Your task to perform on an android device: find snoozed emails in the gmail app Image 0: 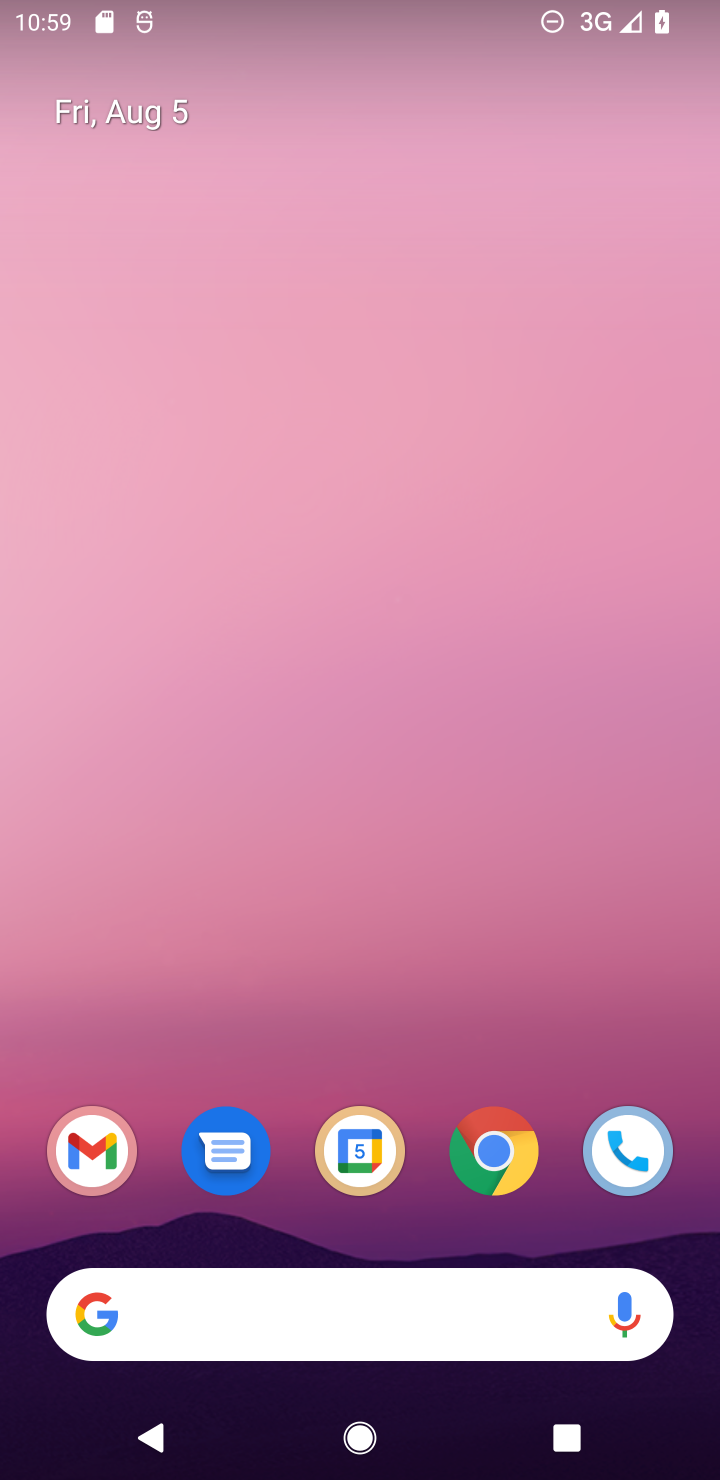
Step 0: click (83, 1138)
Your task to perform on an android device: find snoozed emails in the gmail app Image 1: 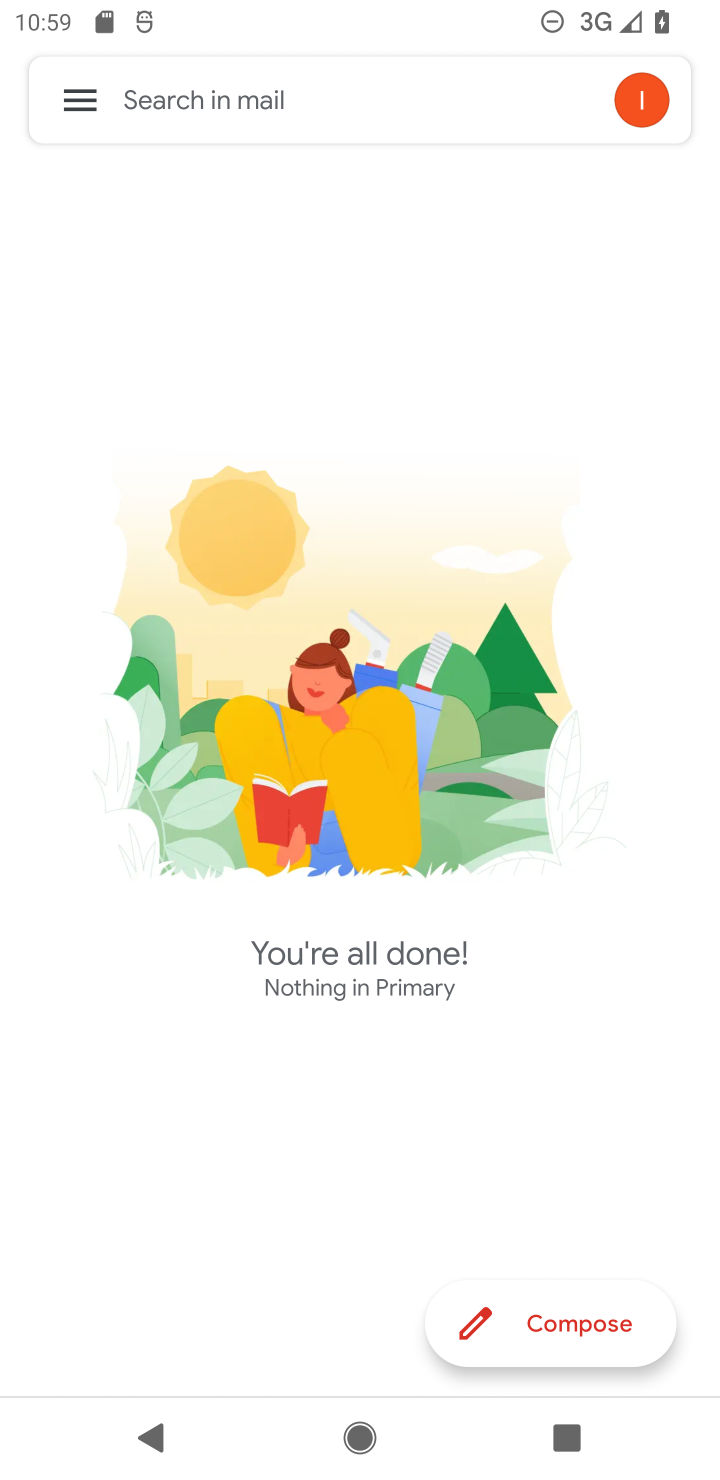
Step 1: click (91, 94)
Your task to perform on an android device: find snoozed emails in the gmail app Image 2: 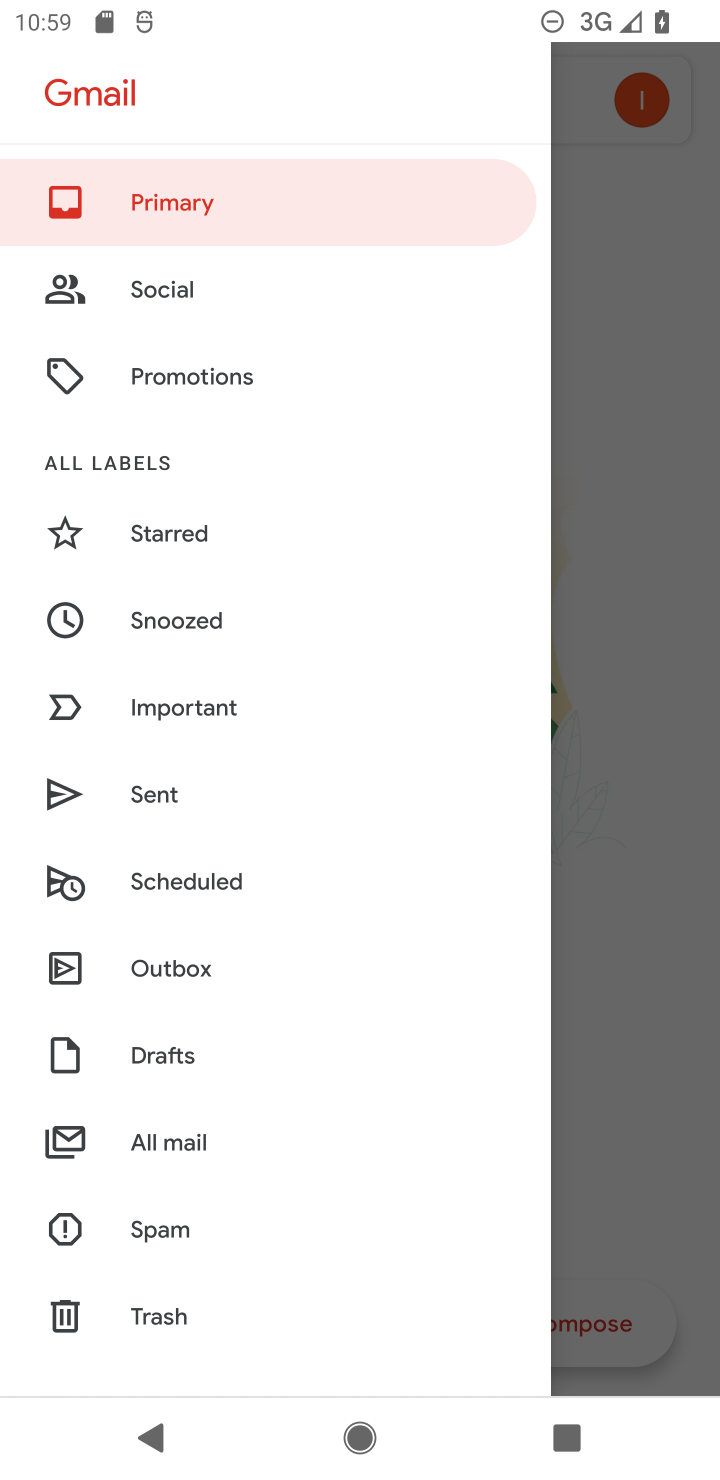
Step 2: click (160, 616)
Your task to perform on an android device: find snoozed emails in the gmail app Image 3: 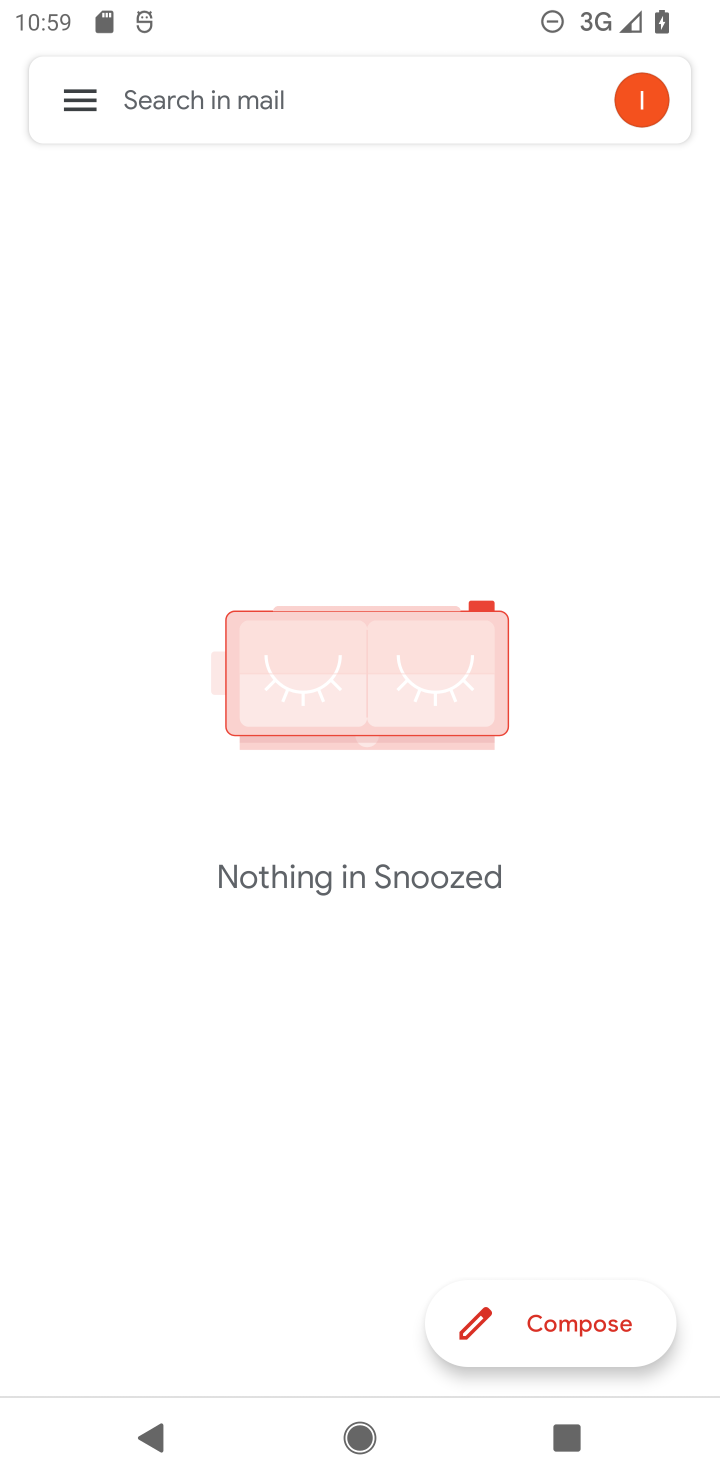
Step 3: task complete